Your task to perform on an android device: toggle wifi Image 0: 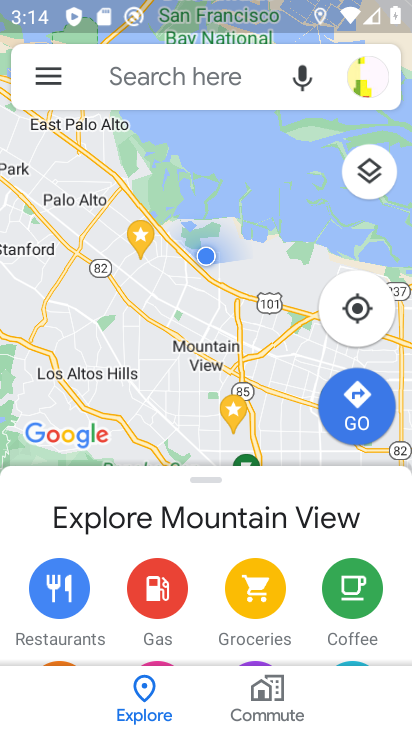
Step 0: drag from (297, 12) to (268, 397)
Your task to perform on an android device: toggle wifi Image 1: 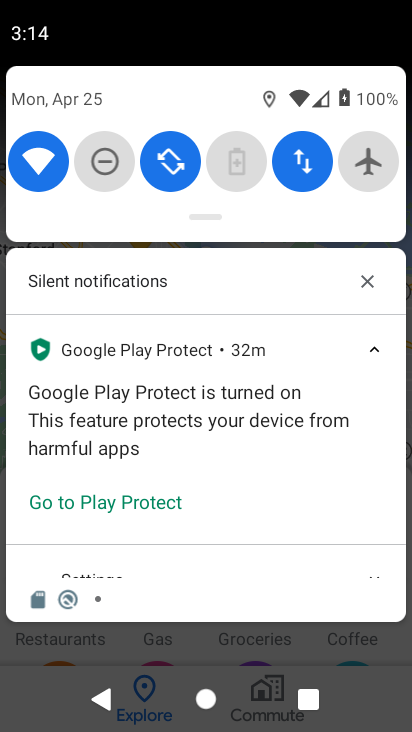
Step 1: click (39, 171)
Your task to perform on an android device: toggle wifi Image 2: 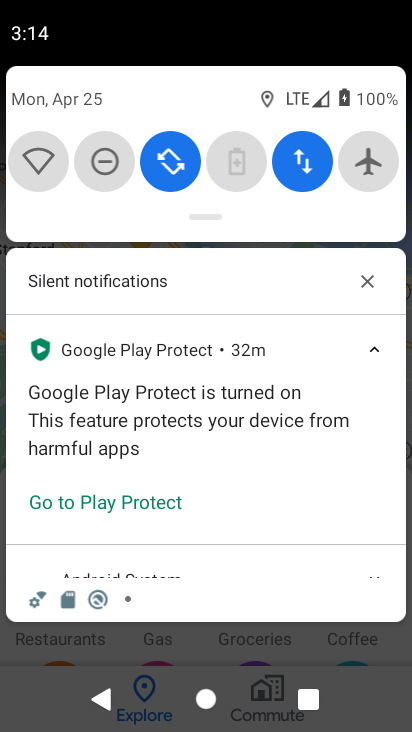
Step 2: task complete